Your task to perform on an android device: snooze an email in the gmail app Image 0: 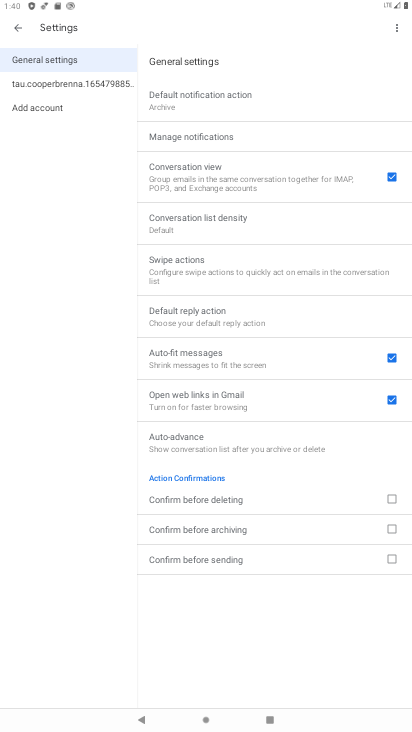
Step 0: press home button
Your task to perform on an android device: snooze an email in the gmail app Image 1: 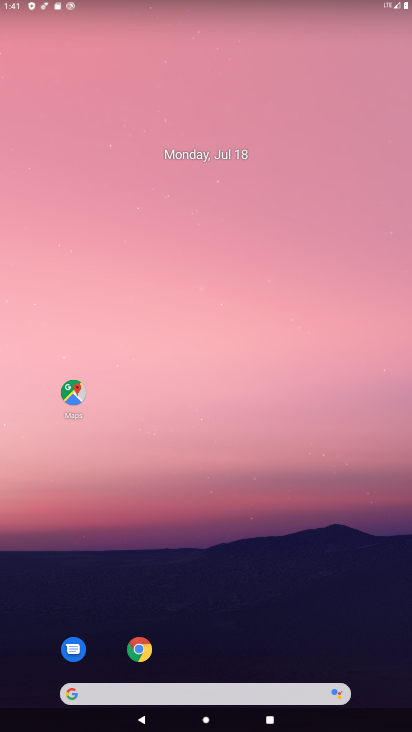
Step 1: drag from (177, 702) to (243, 11)
Your task to perform on an android device: snooze an email in the gmail app Image 2: 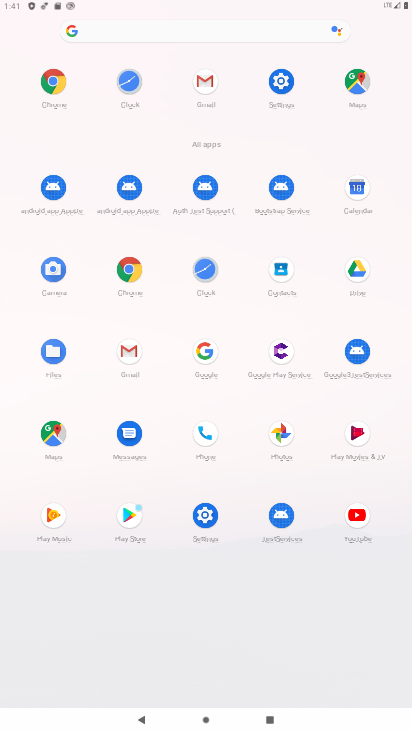
Step 2: click (138, 341)
Your task to perform on an android device: snooze an email in the gmail app Image 3: 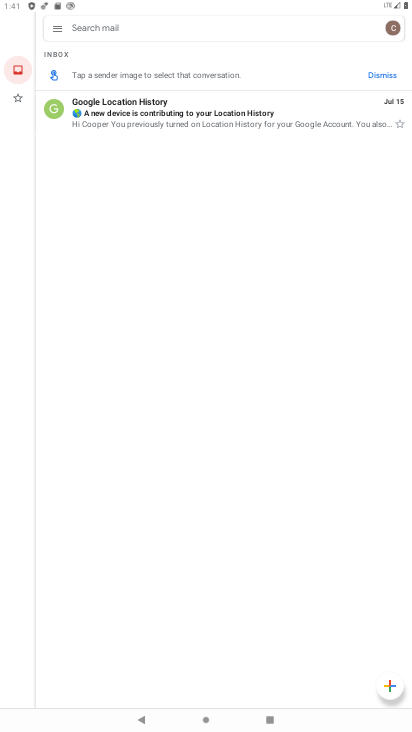
Step 3: click (201, 119)
Your task to perform on an android device: snooze an email in the gmail app Image 4: 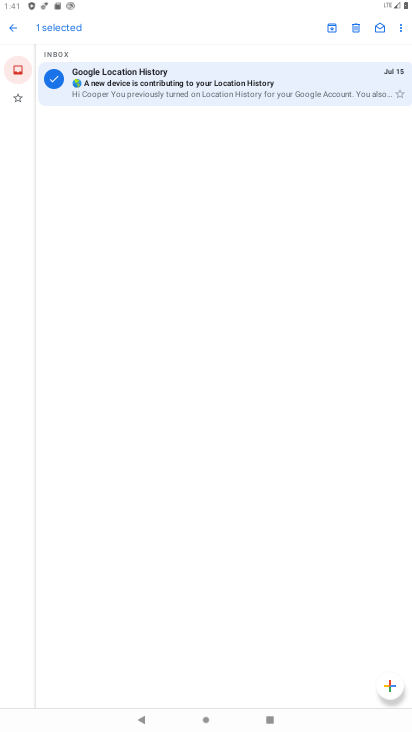
Step 4: click (398, 26)
Your task to perform on an android device: snooze an email in the gmail app Image 5: 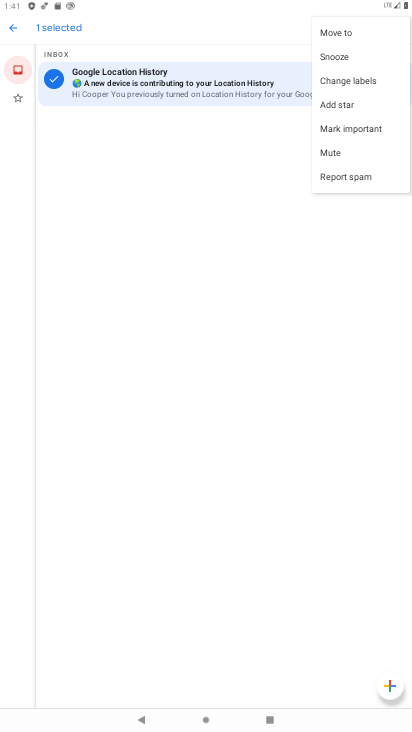
Step 5: click (343, 54)
Your task to perform on an android device: snooze an email in the gmail app Image 6: 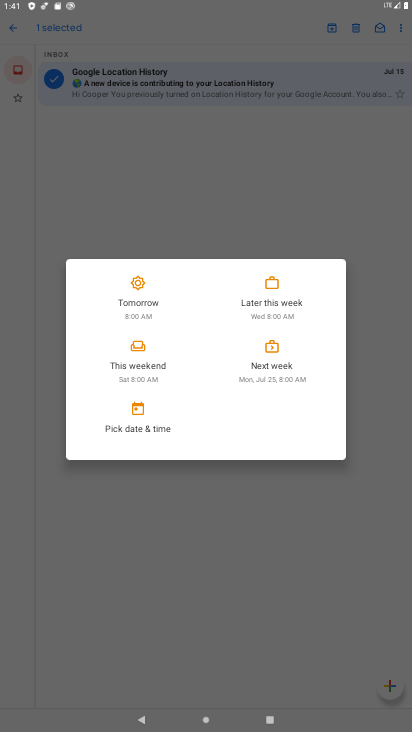
Step 6: click (146, 292)
Your task to perform on an android device: snooze an email in the gmail app Image 7: 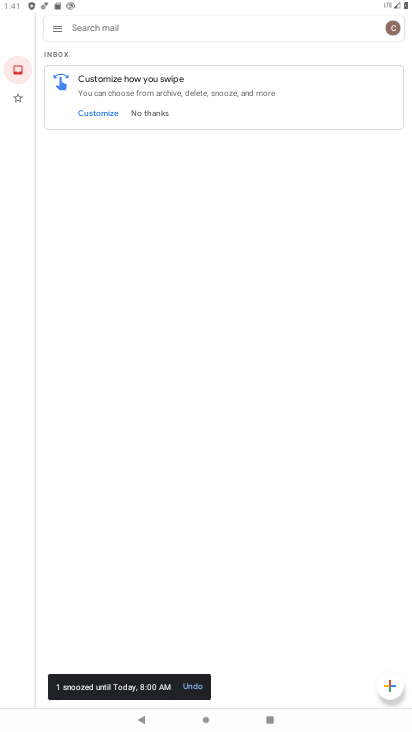
Step 7: task complete